Your task to perform on an android device: What is the news today? Image 0: 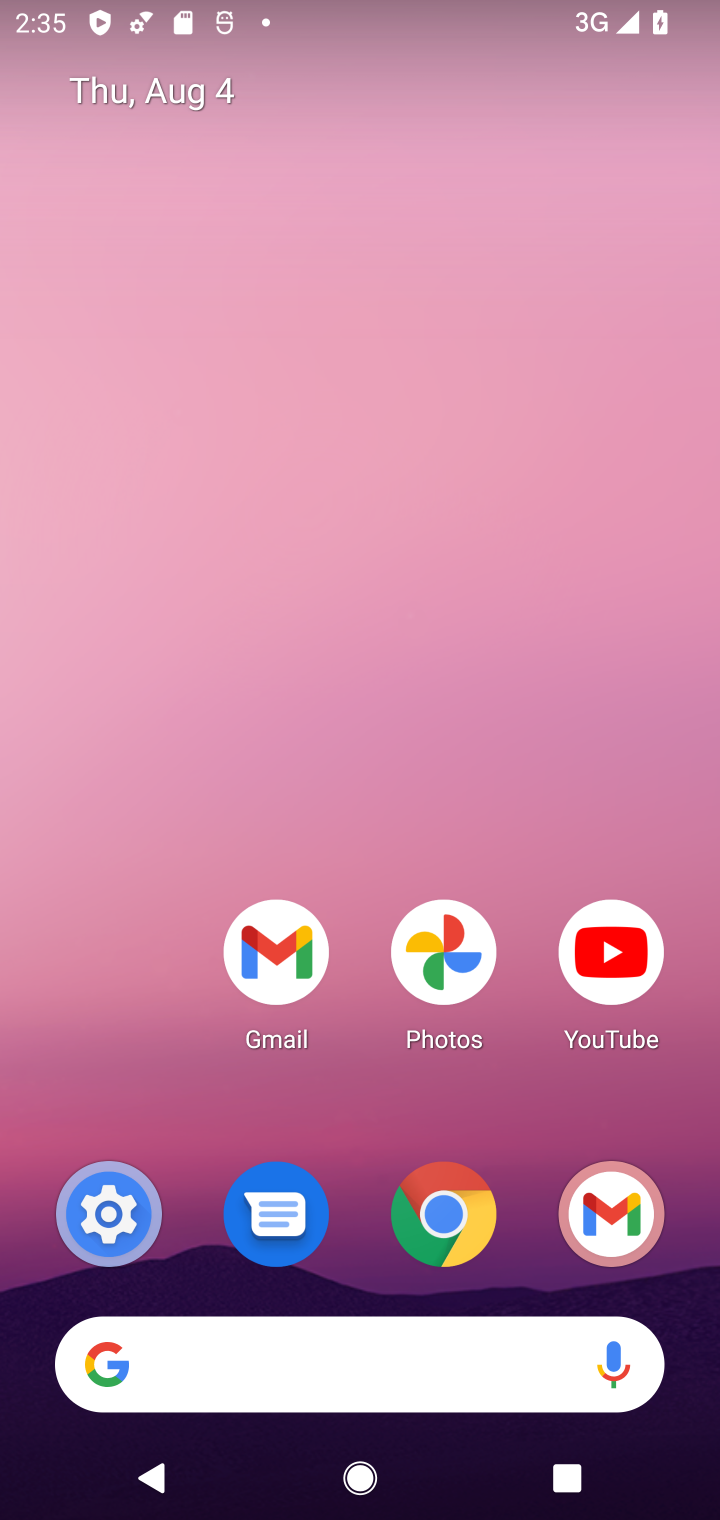
Step 0: press home button
Your task to perform on an android device: What is the news today? Image 1: 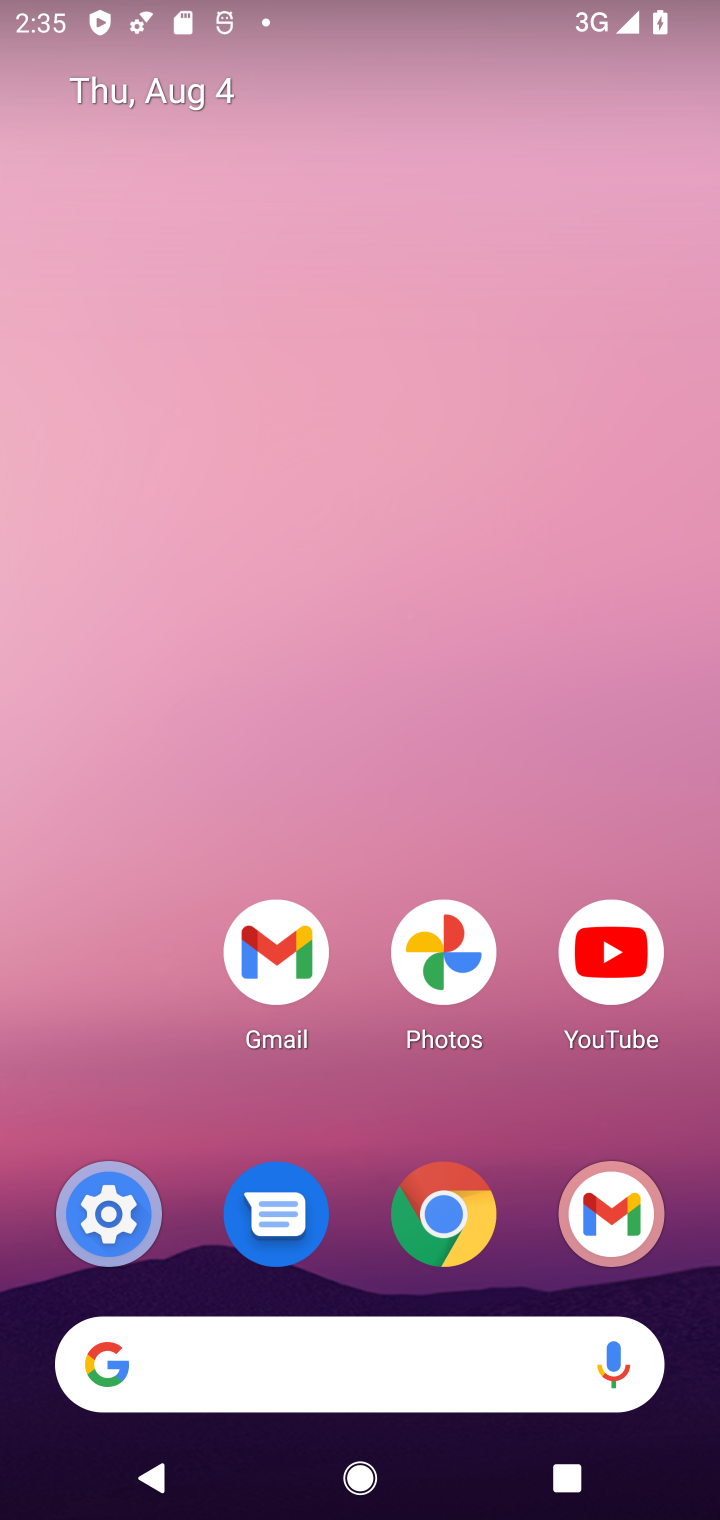
Step 1: drag from (141, 1090) to (130, 62)
Your task to perform on an android device: What is the news today? Image 2: 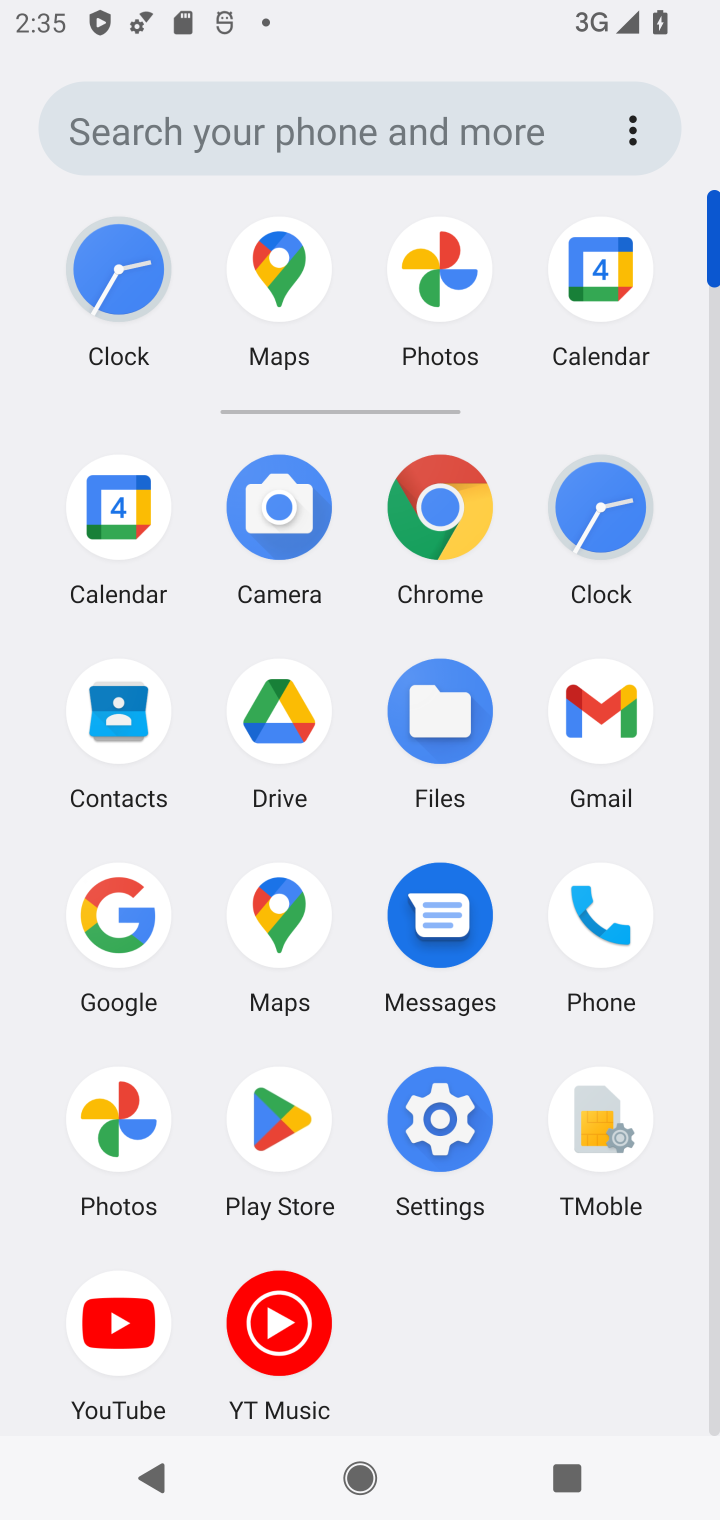
Step 2: click (115, 959)
Your task to perform on an android device: What is the news today? Image 3: 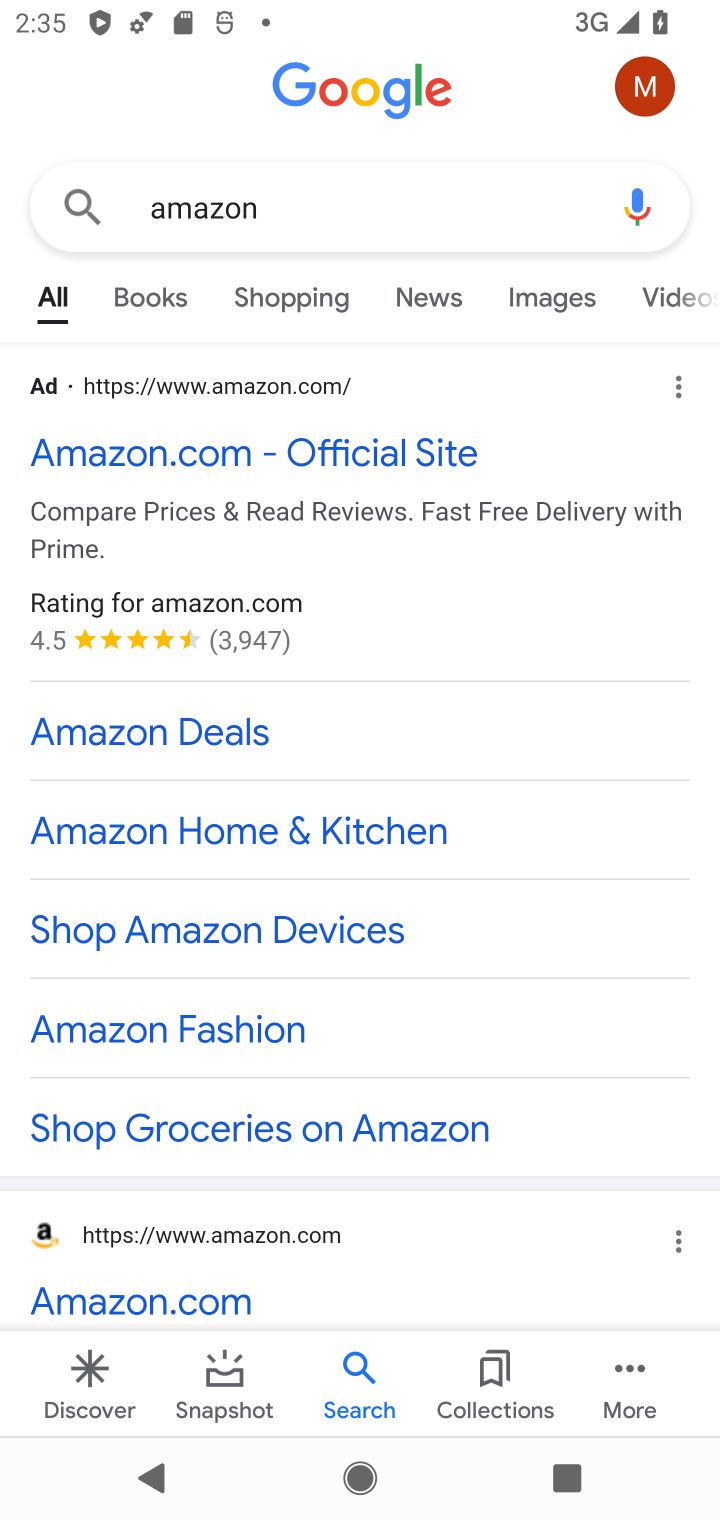
Step 3: press back button
Your task to perform on an android device: What is the news today? Image 4: 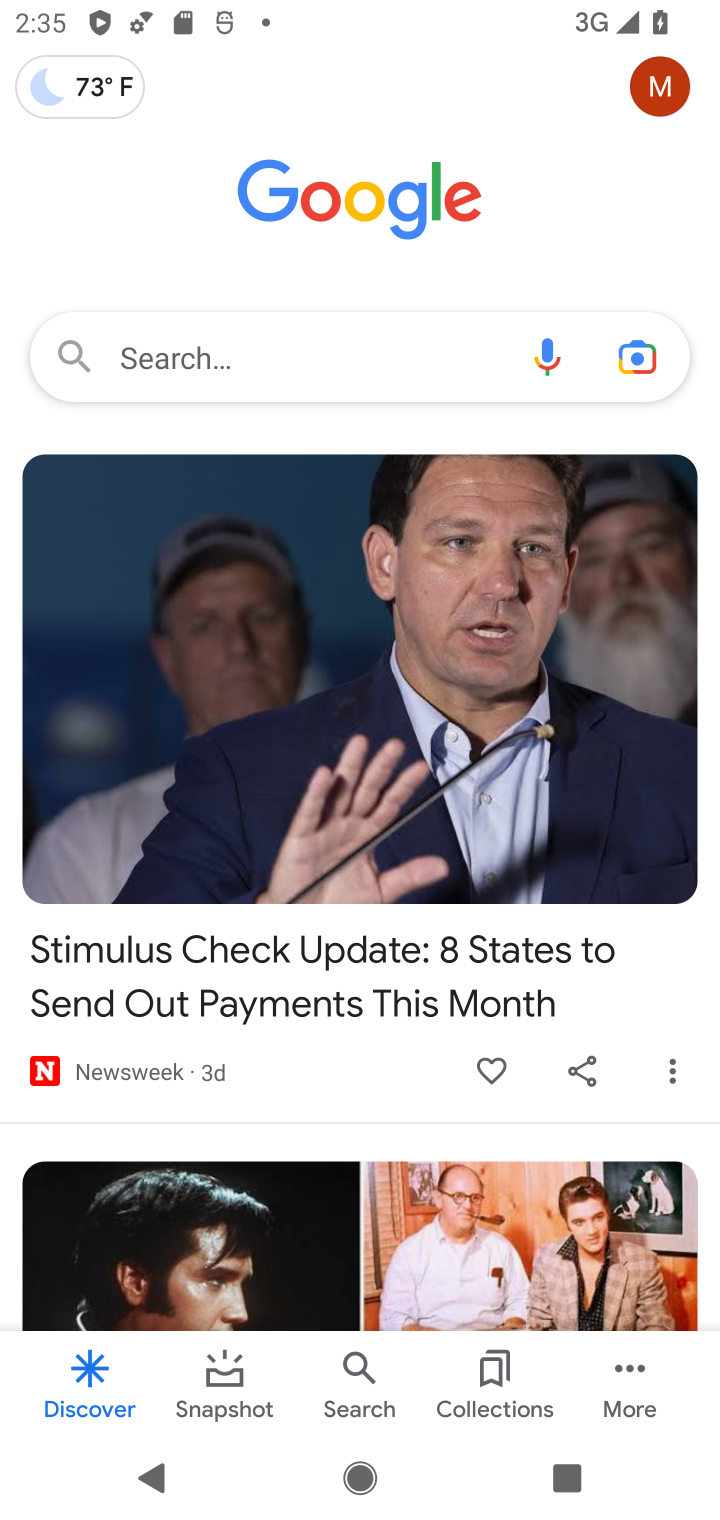
Step 4: click (190, 368)
Your task to perform on an android device: What is the news today? Image 5: 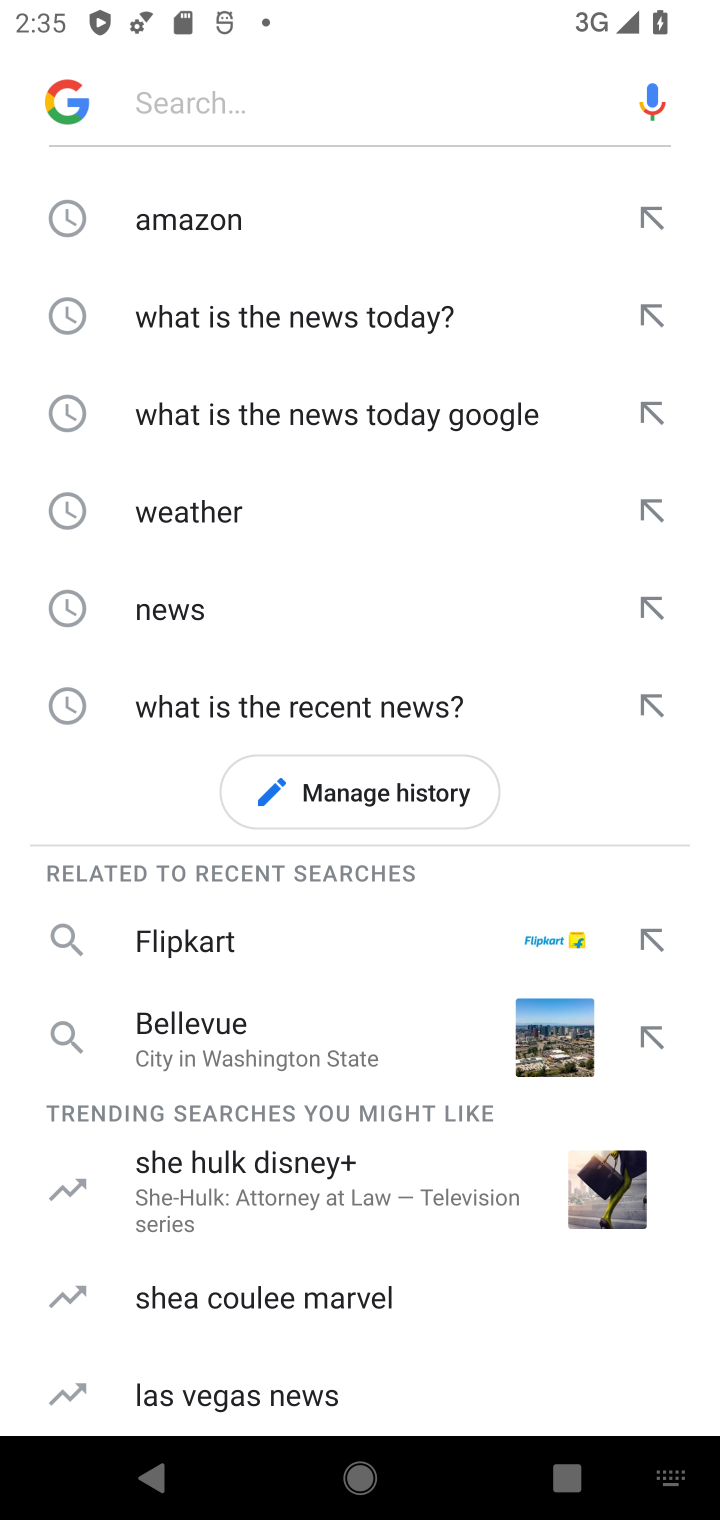
Step 5: type "What is the news today?"
Your task to perform on an android device: What is the news today? Image 6: 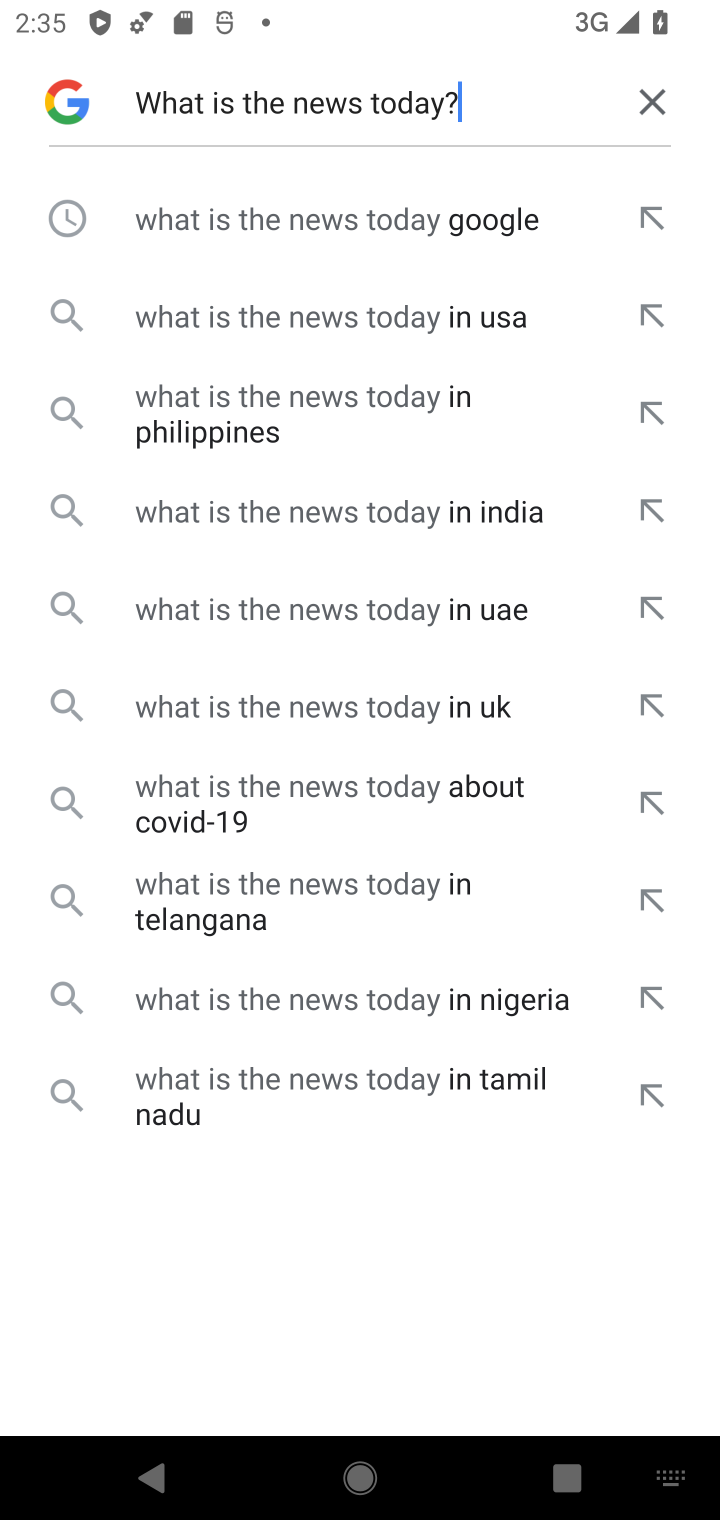
Step 6: task complete